Your task to perform on an android device: toggle wifi Image 0: 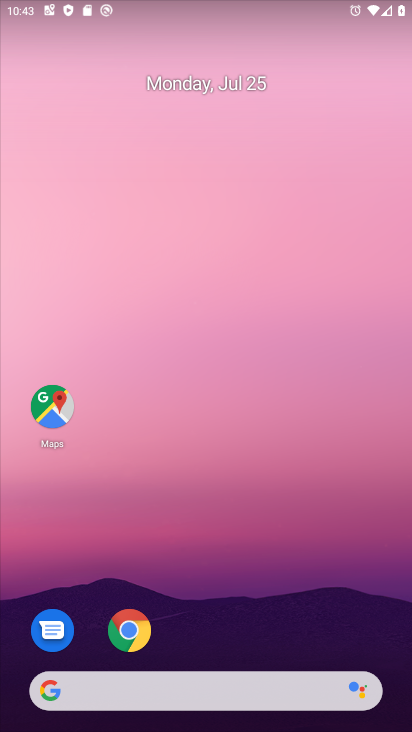
Step 0: drag from (217, 690) to (228, 130)
Your task to perform on an android device: toggle wifi Image 1: 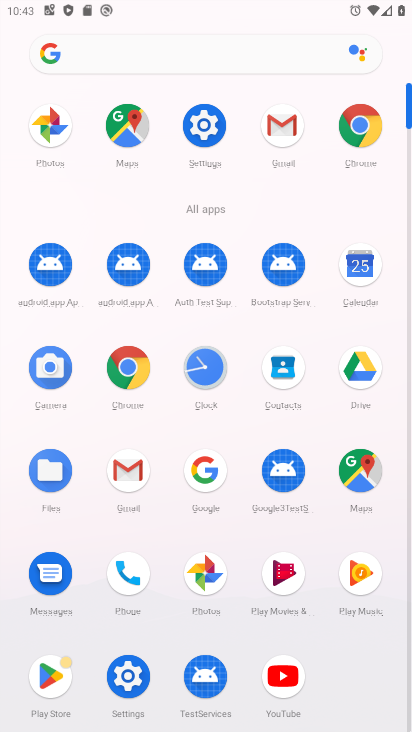
Step 1: click (192, 138)
Your task to perform on an android device: toggle wifi Image 2: 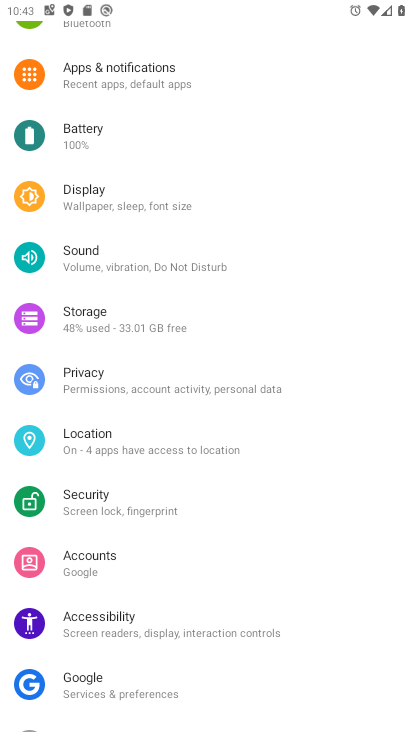
Step 2: drag from (96, 51) to (168, 496)
Your task to perform on an android device: toggle wifi Image 3: 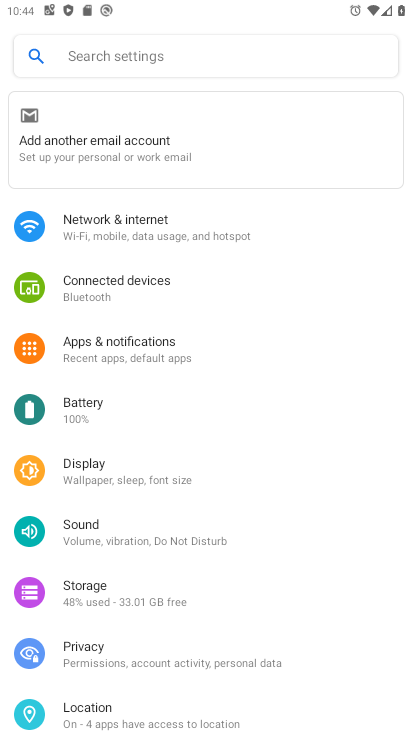
Step 3: click (95, 233)
Your task to perform on an android device: toggle wifi Image 4: 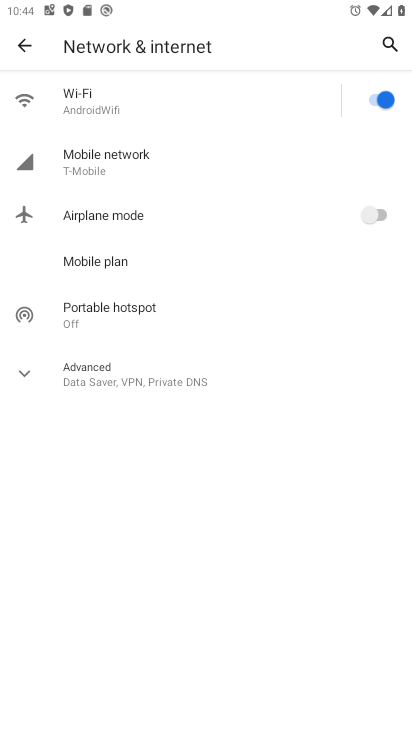
Step 4: click (377, 107)
Your task to perform on an android device: toggle wifi Image 5: 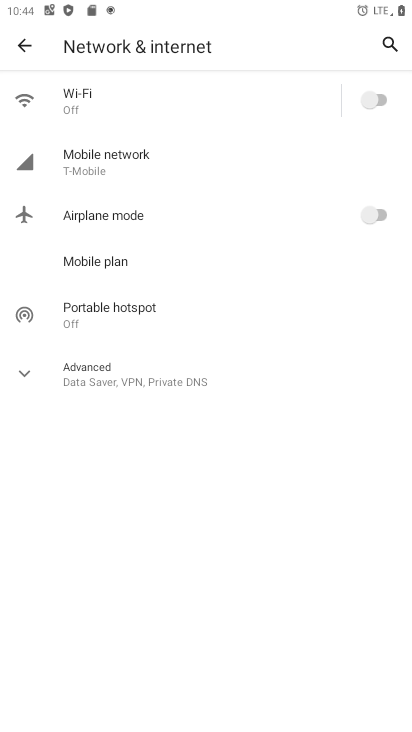
Step 5: task complete